Your task to perform on an android device: What's the weather today? Image 0: 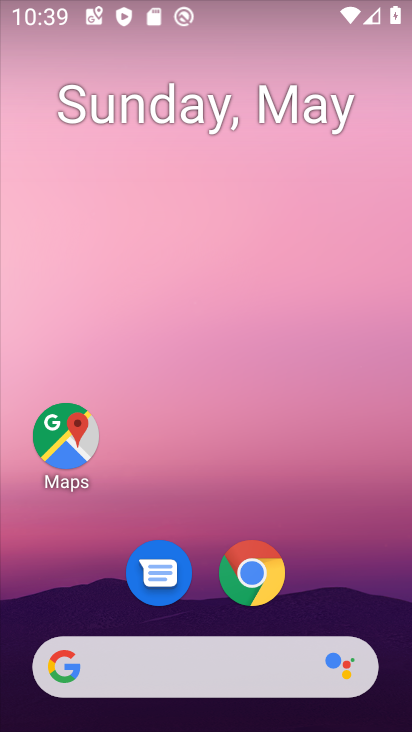
Step 0: click (256, 572)
Your task to perform on an android device: What's the weather today? Image 1: 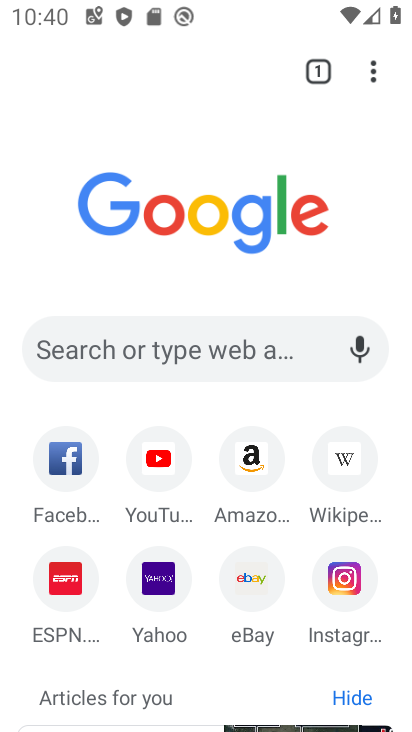
Step 1: click (178, 342)
Your task to perform on an android device: What's the weather today? Image 2: 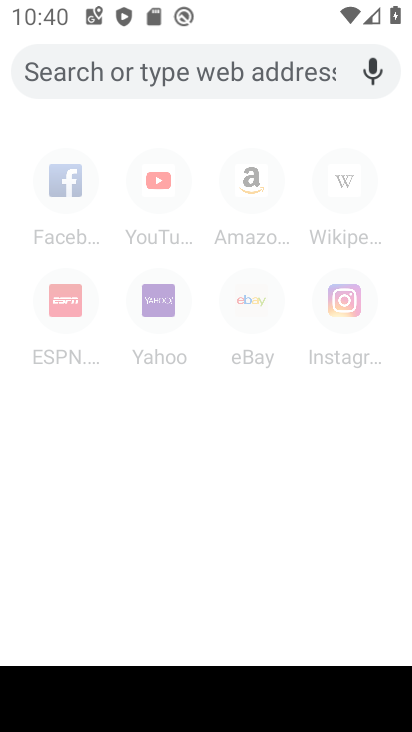
Step 2: type "weather"
Your task to perform on an android device: What's the weather today? Image 3: 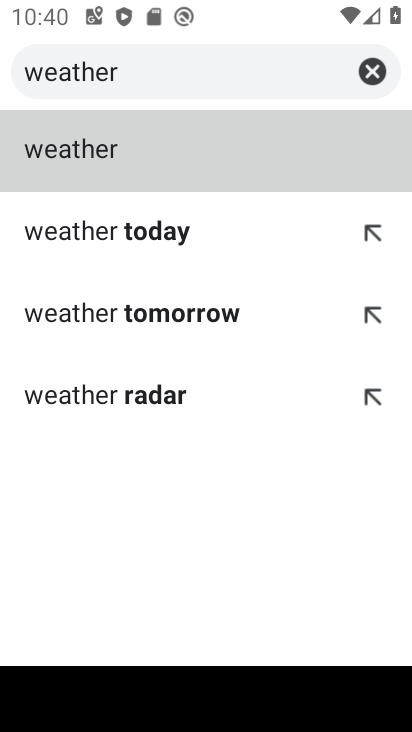
Step 3: click (274, 149)
Your task to perform on an android device: What's the weather today? Image 4: 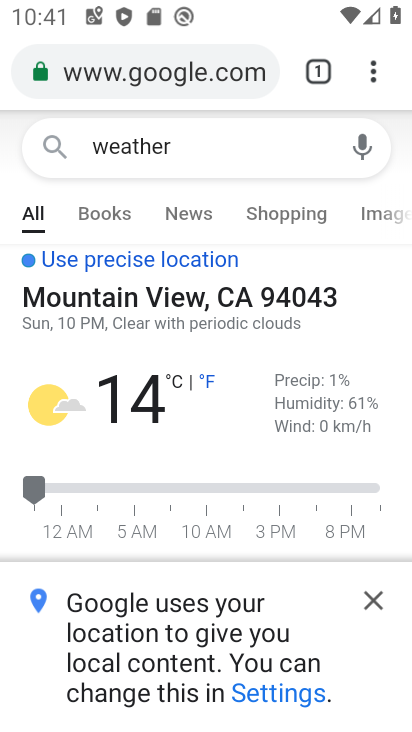
Step 4: task complete